Your task to perform on an android device: change notification settings in the gmail app Image 0: 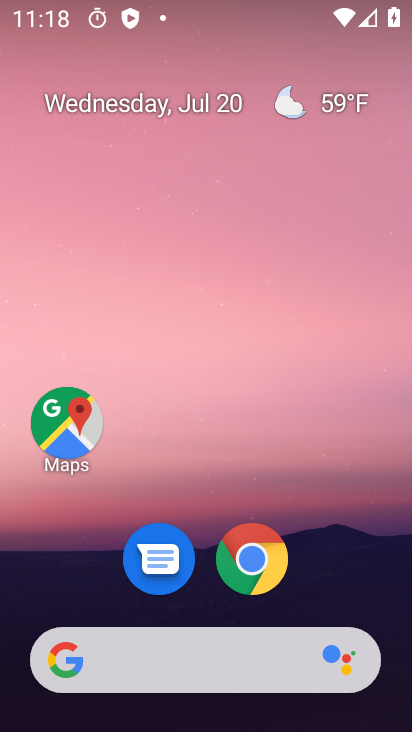
Step 0: drag from (207, 558) to (281, 5)
Your task to perform on an android device: change notification settings in the gmail app Image 1: 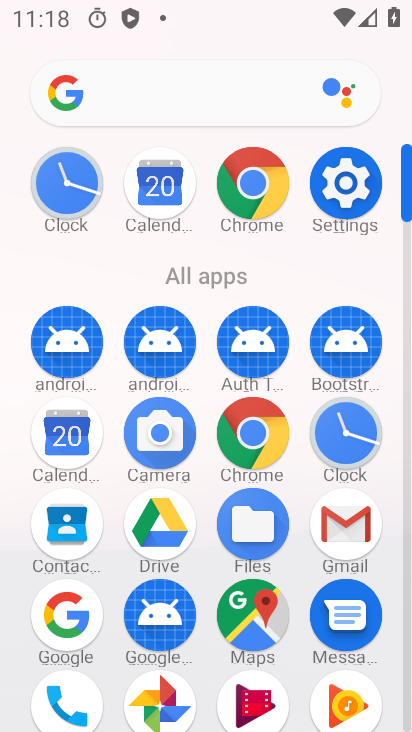
Step 1: click (355, 522)
Your task to perform on an android device: change notification settings in the gmail app Image 2: 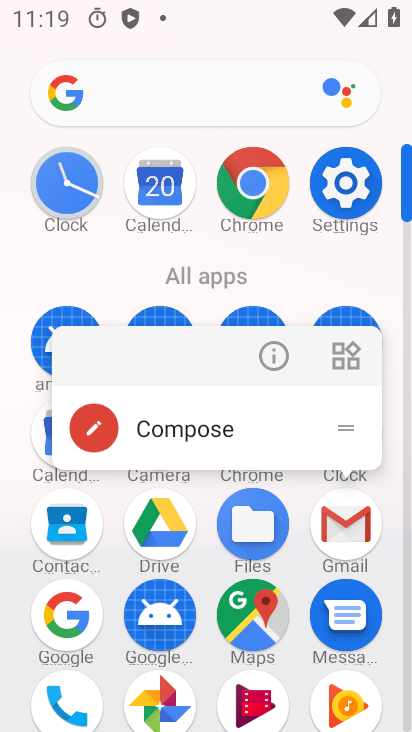
Step 2: click (275, 355)
Your task to perform on an android device: change notification settings in the gmail app Image 3: 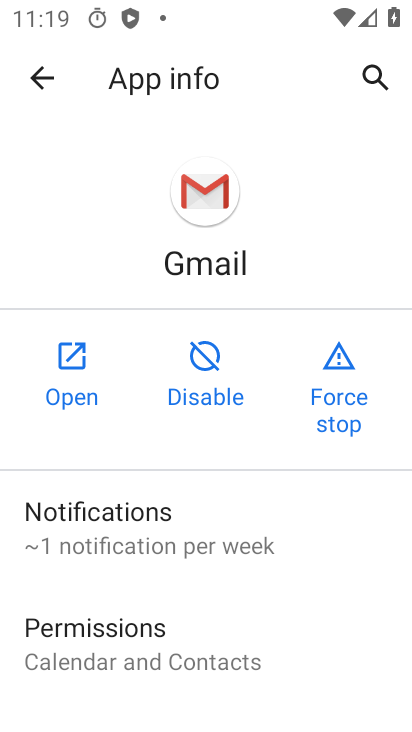
Step 3: click (199, 558)
Your task to perform on an android device: change notification settings in the gmail app Image 4: 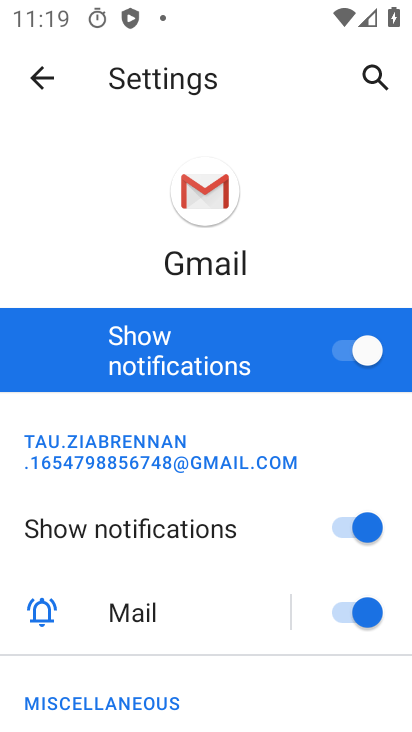
Step 4: task complete